Your task to perform on an android device: toggle javascript in the chrome app Image 0: 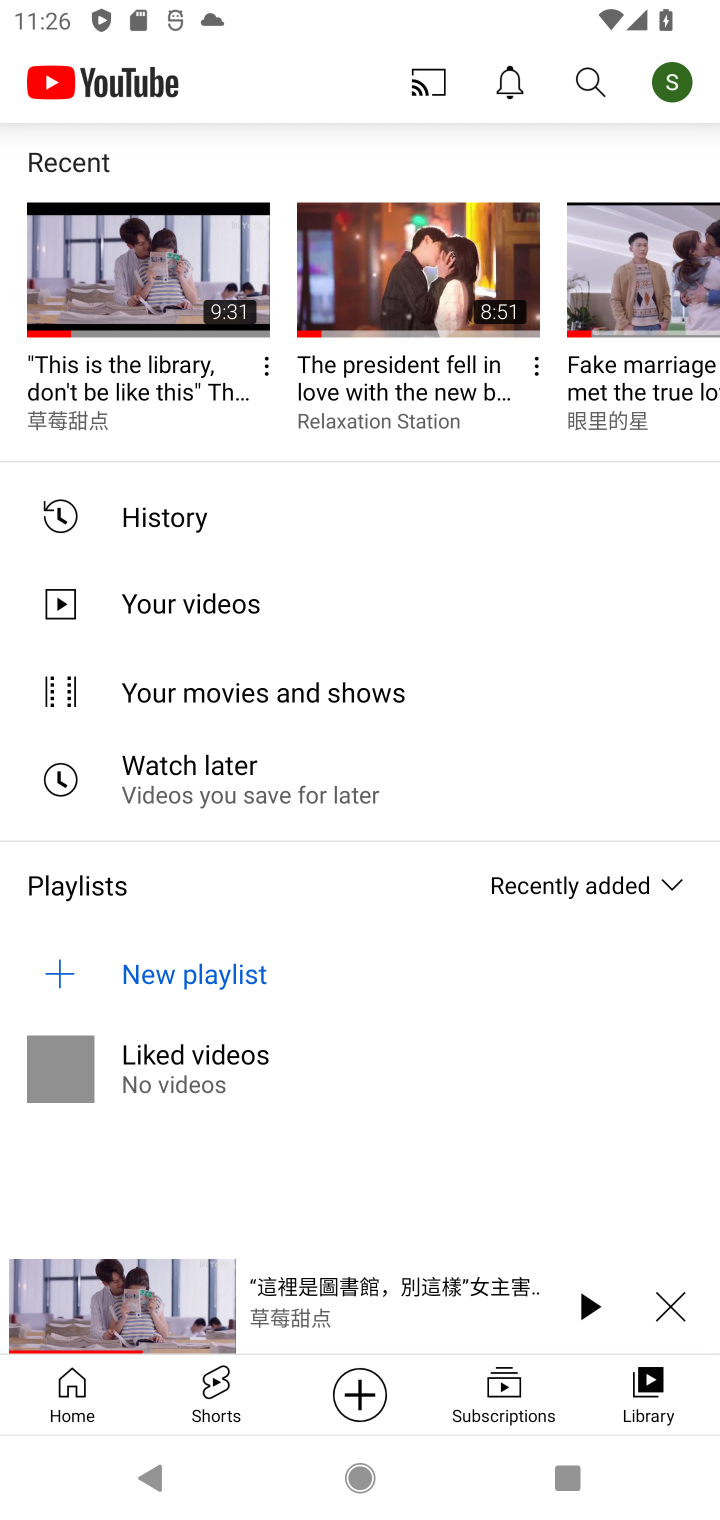
Step 0: press home button
Your task to perform on an android device: toggle javascript in the chrome app Image 1: 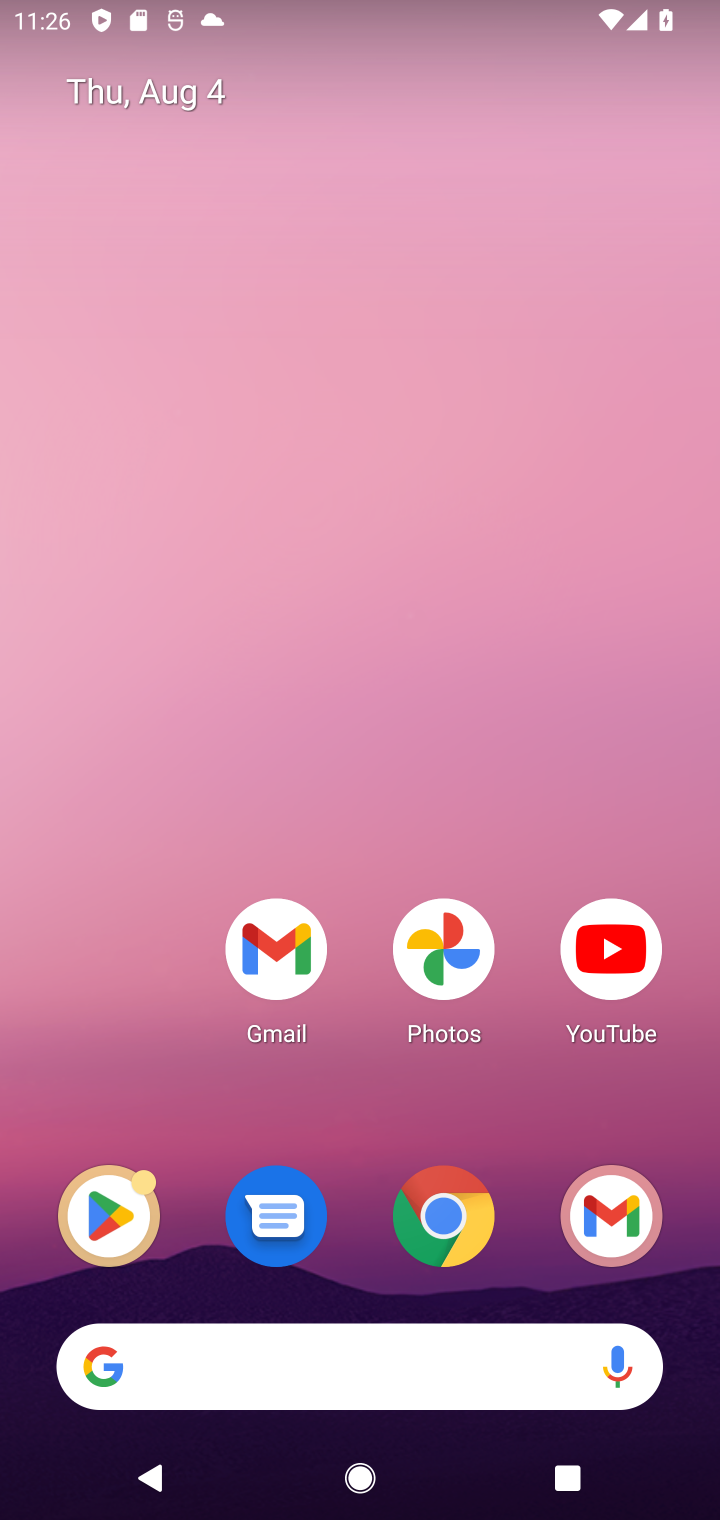
Step 1: click (447, 1212)
Your task to perform on an android device: toggle javascript in the chrome app Image 2: 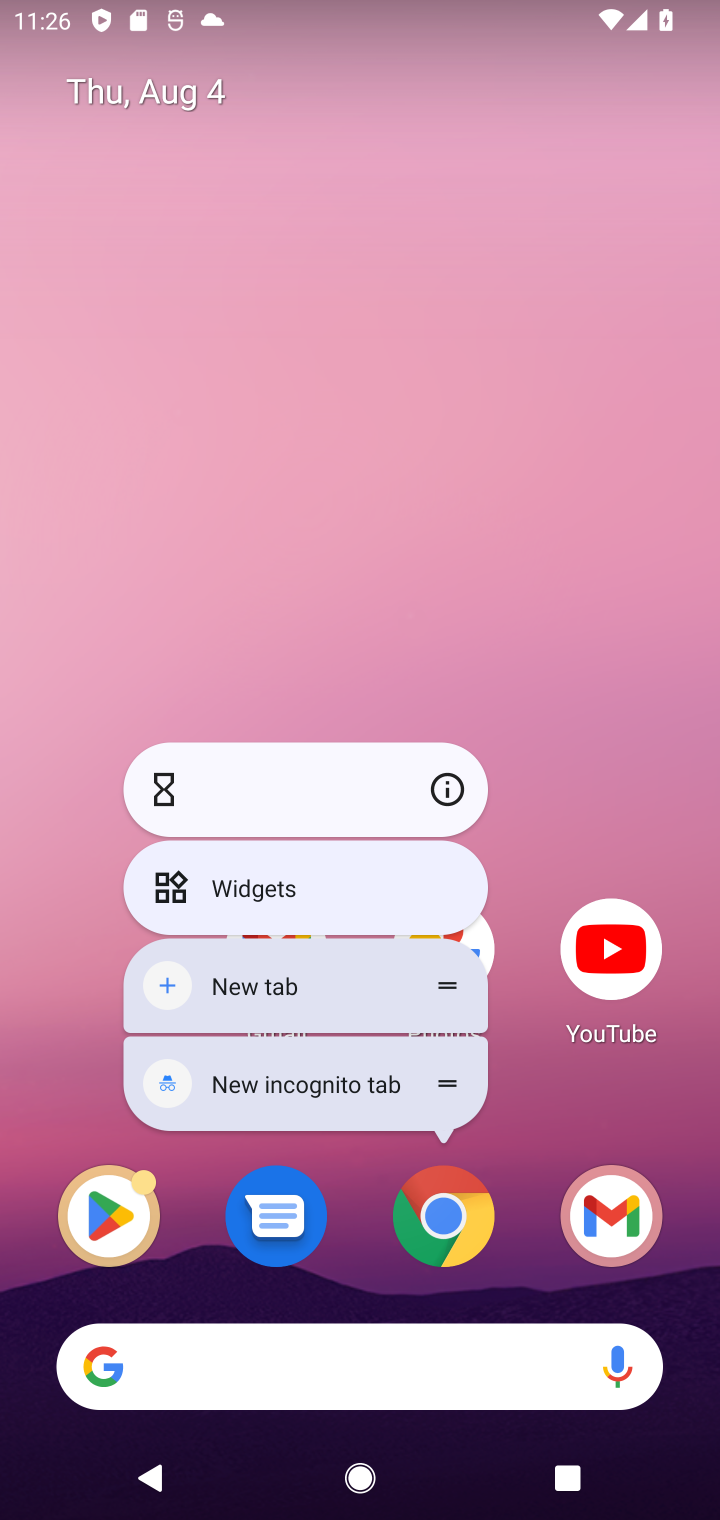
Step 2: click (447, 1212)
Your task to perform on an android device: toggle javascript in the chrome app Image 3: 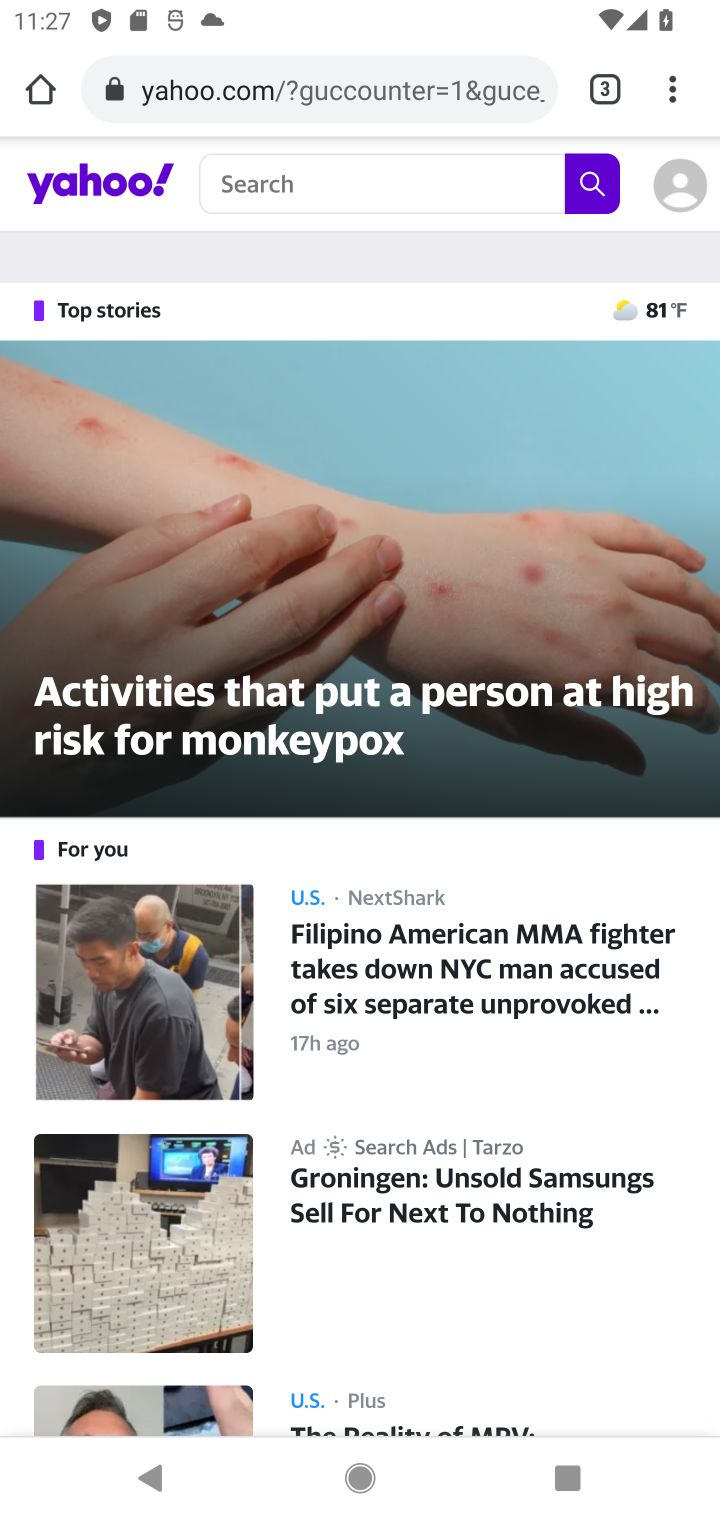
Step 3: click (673, 93)
Your task to perform on an android device: toggle javascript in the chrome app Image 4: 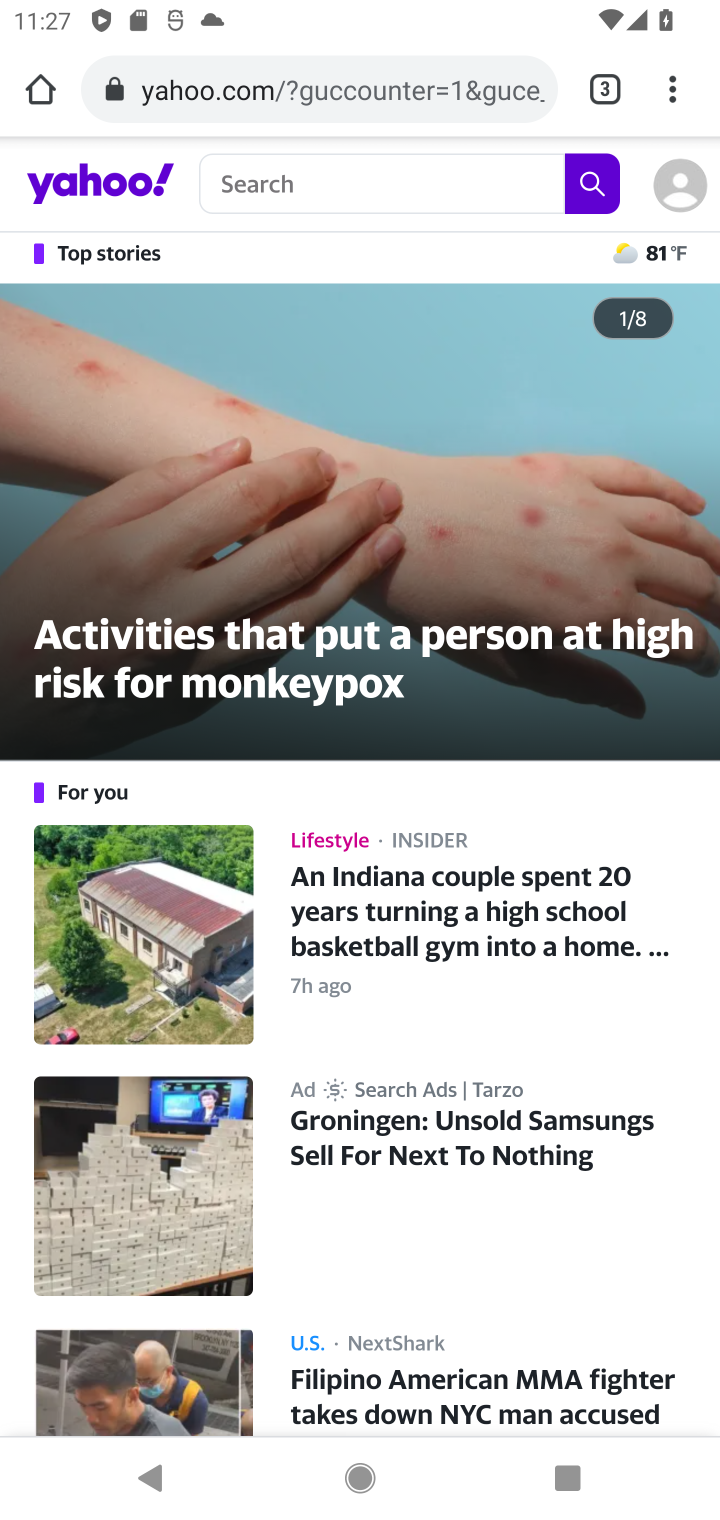
Step 4: drag from (676, 87) to (466, 1179)
Your task to perform on an android device: toggle javascript in the chrome app Image 5: 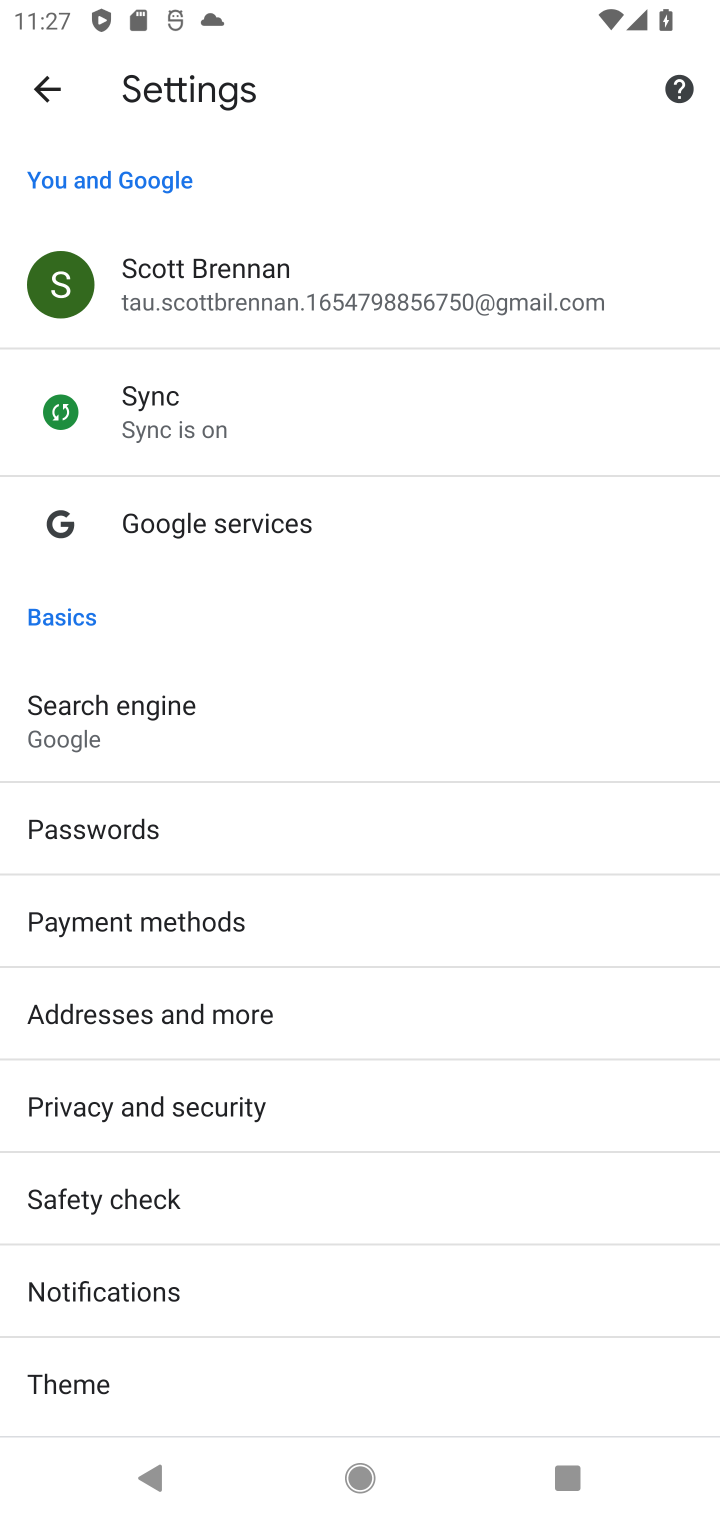
Step 5: drag from (223, 1179) to (276, 942)
Your task to perform on an android device: toggle javascript in the chrome app Image 6: 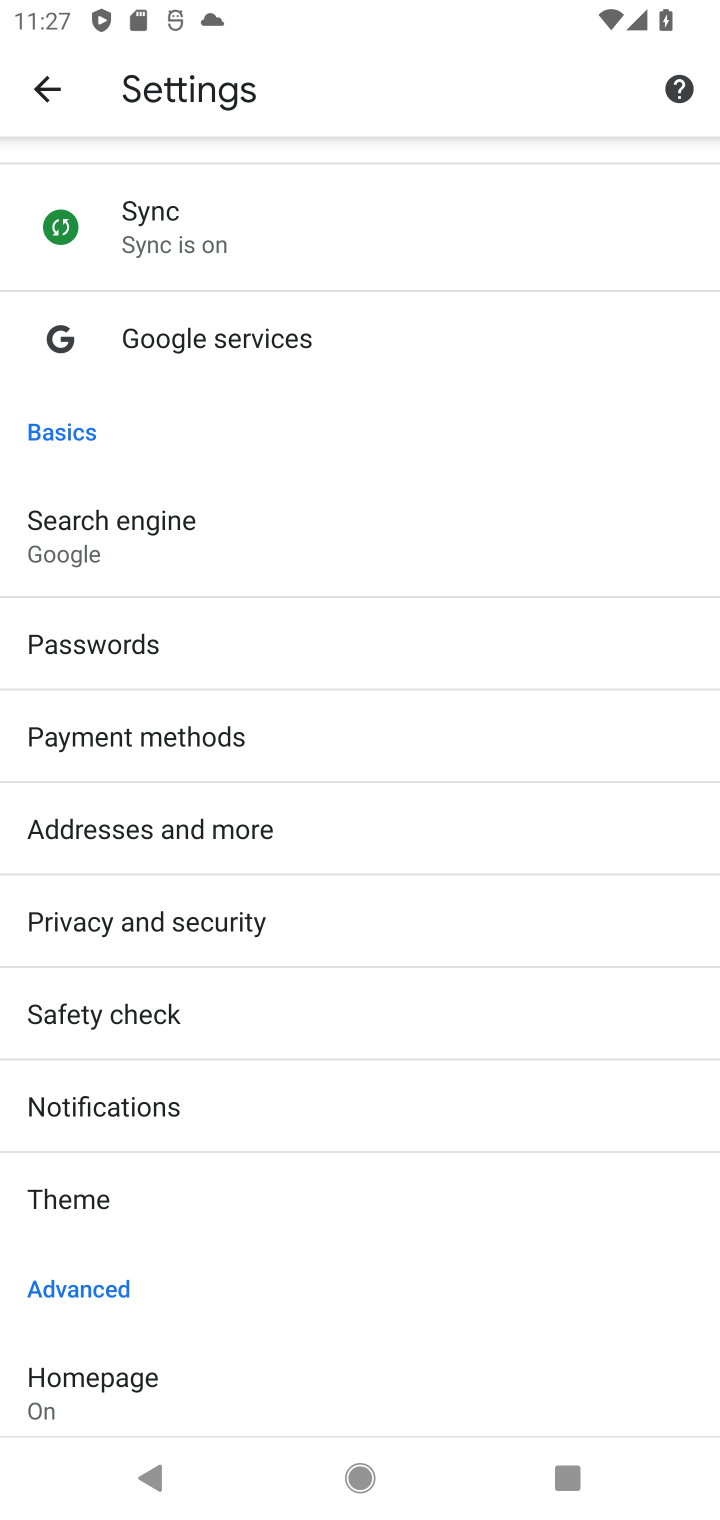
Step 6: drag from (248, 1162) to (273, 872)
Your task to perform on an android device: toggle javascript in the chrome app Image 7: 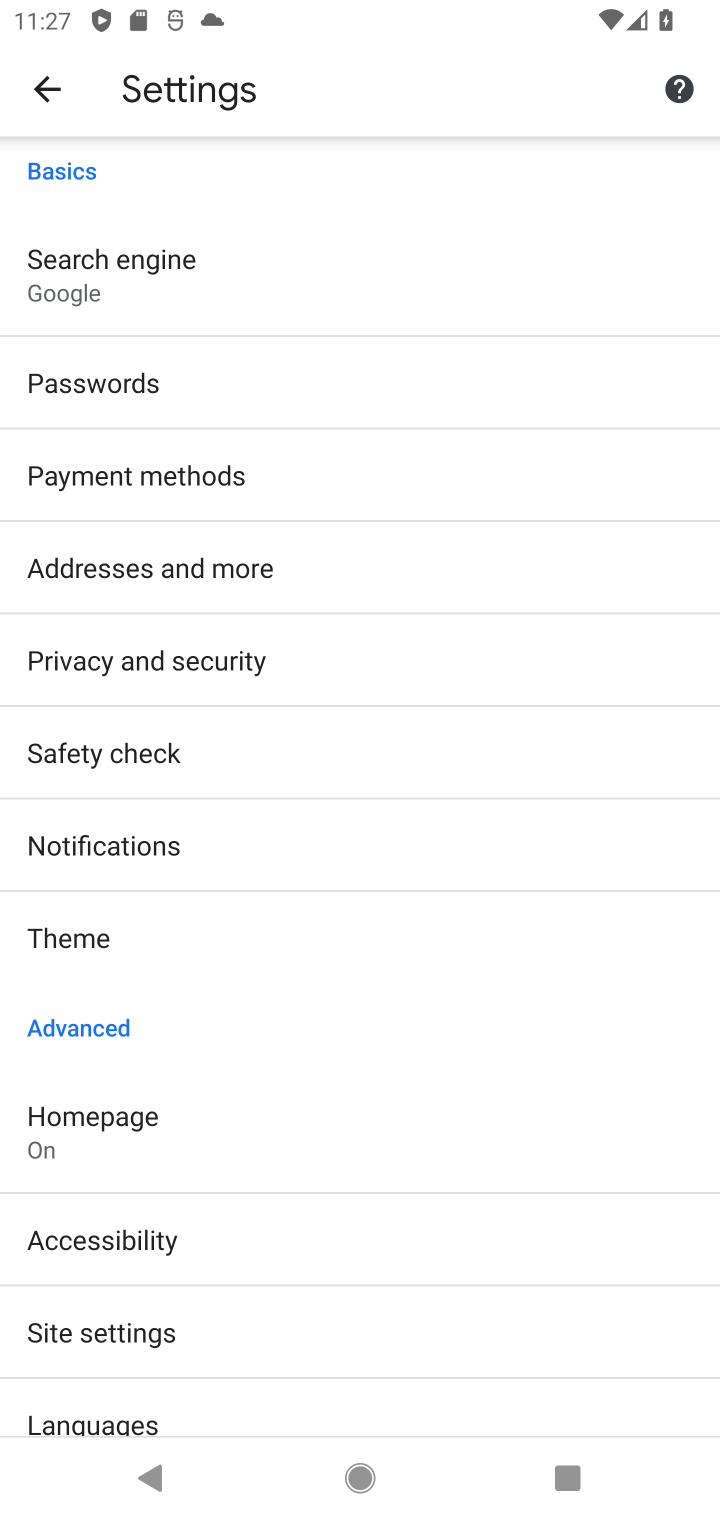
Step 7: drag from (222, 1242) to (226, 1014)
Your task to perform on an android device: toggle javascript in the chrome app Image 8: 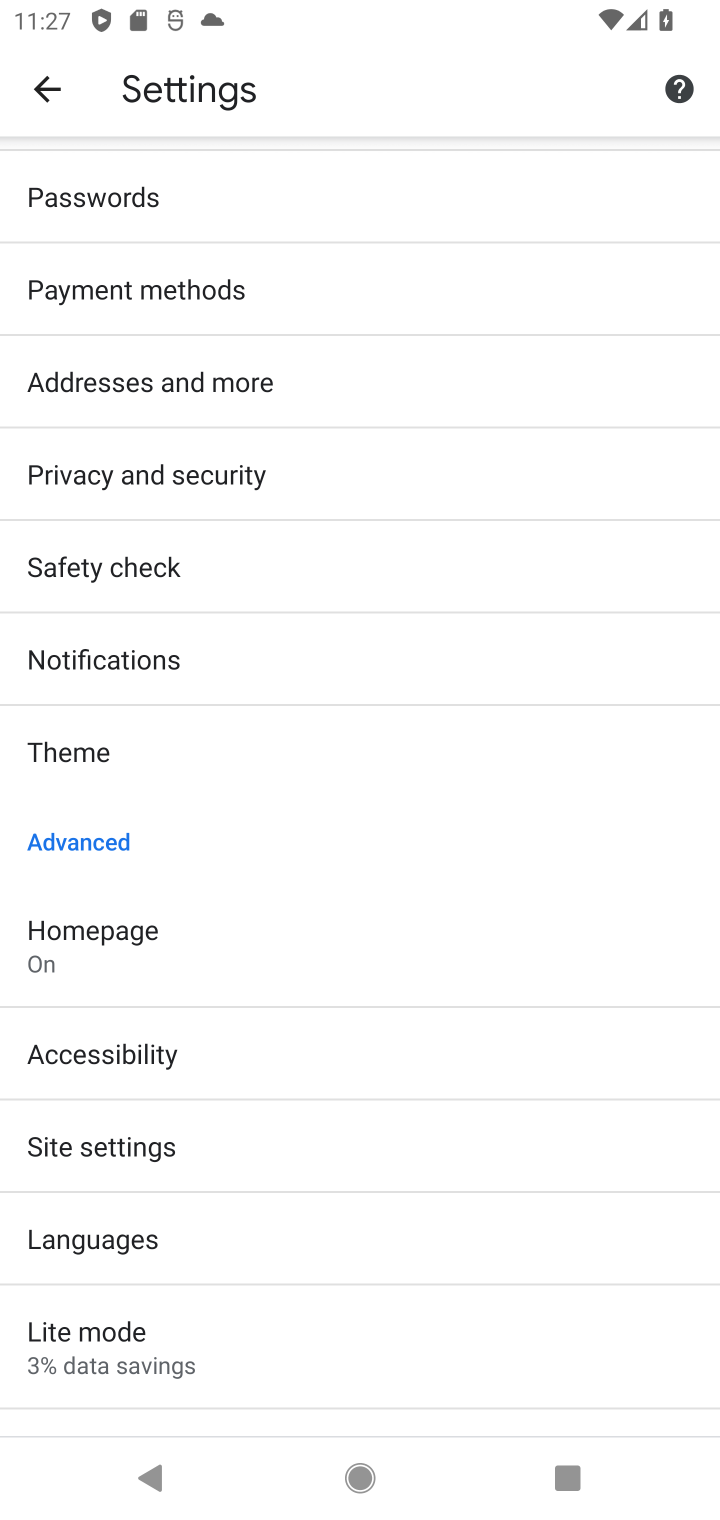
Step 8: click (103, 1149)
Your task to perform on an android device: toggle javascript in the chrome app Image 9: 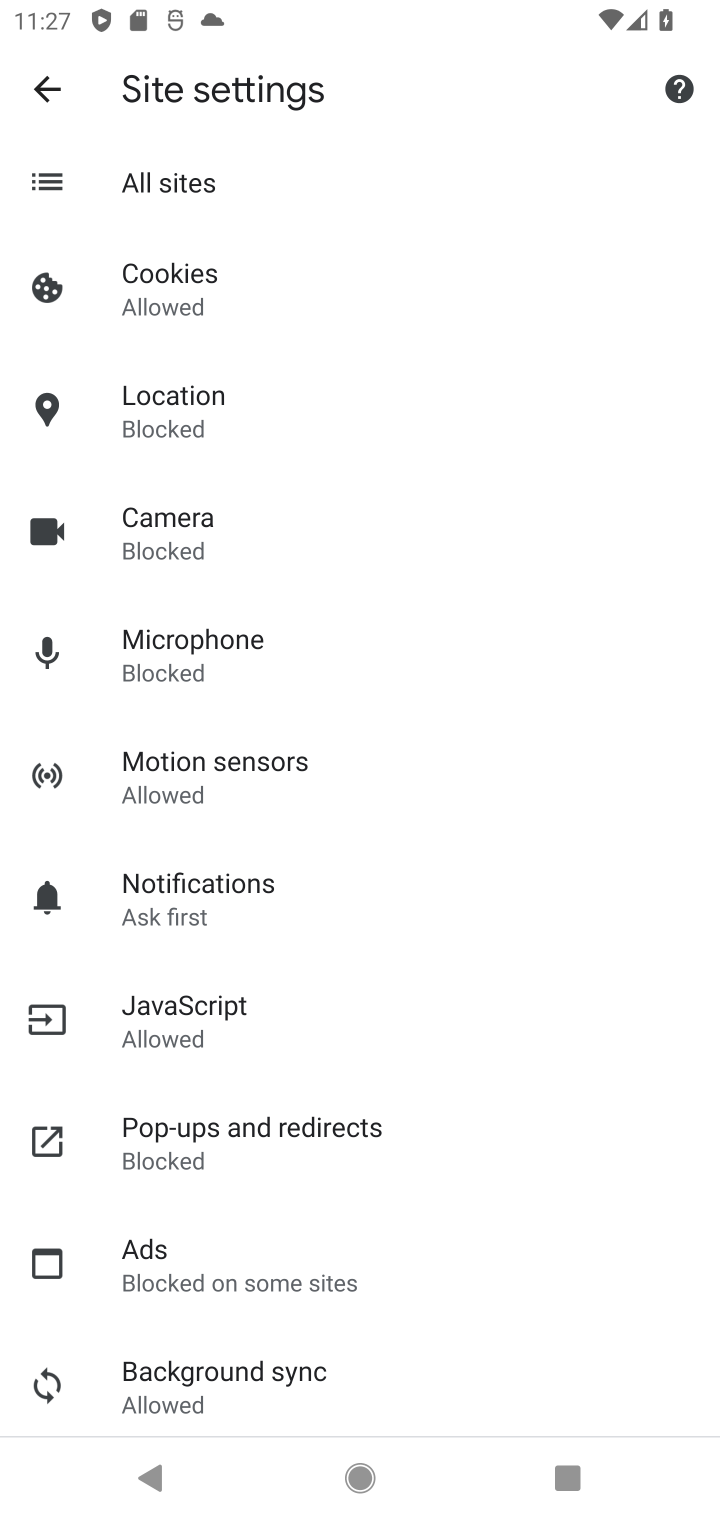
Step 9: click (200, 1030)
Your task to perform on an android device: toggle javascript in the chrome app Image 10: 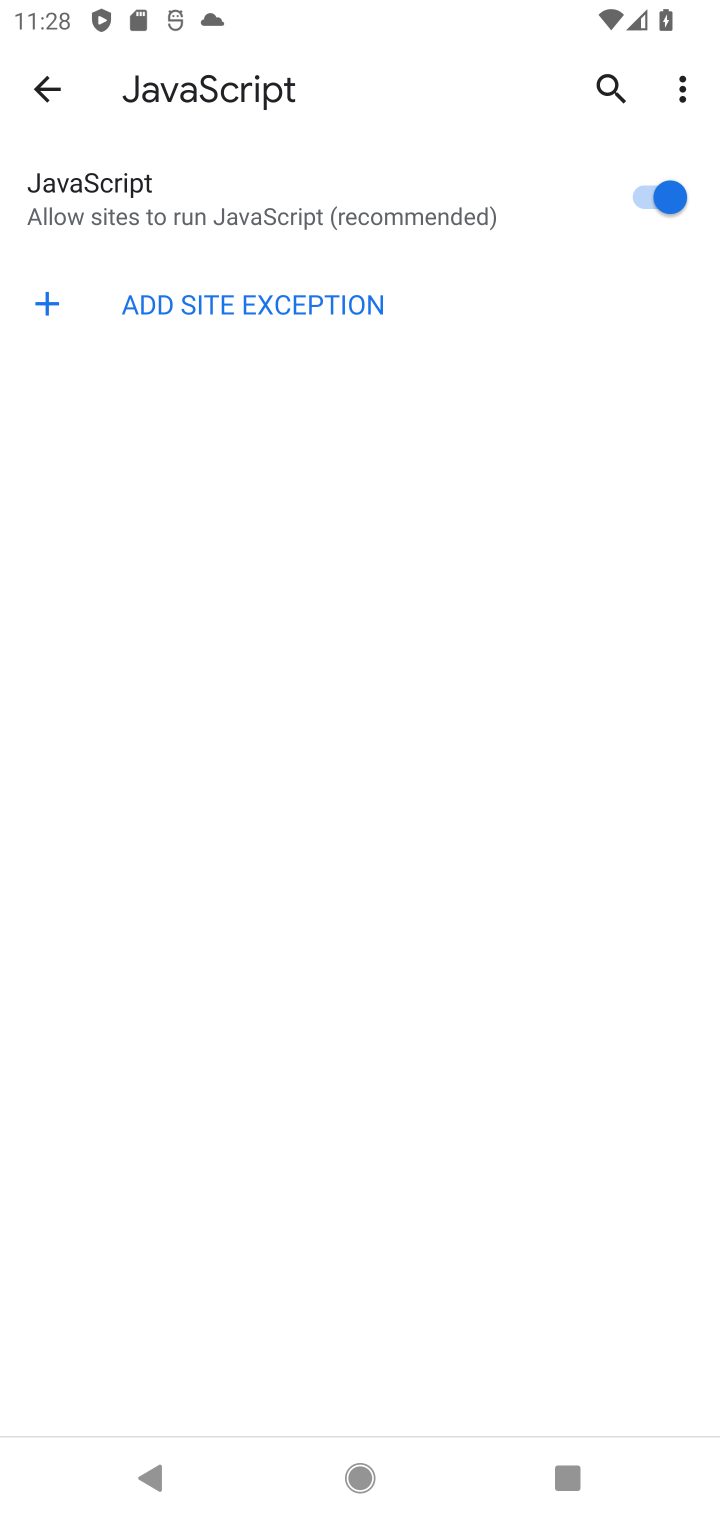
Step 10: click (639, 186)
Your task to perform on an android device: toggle javascript in the chrome app Image 11: 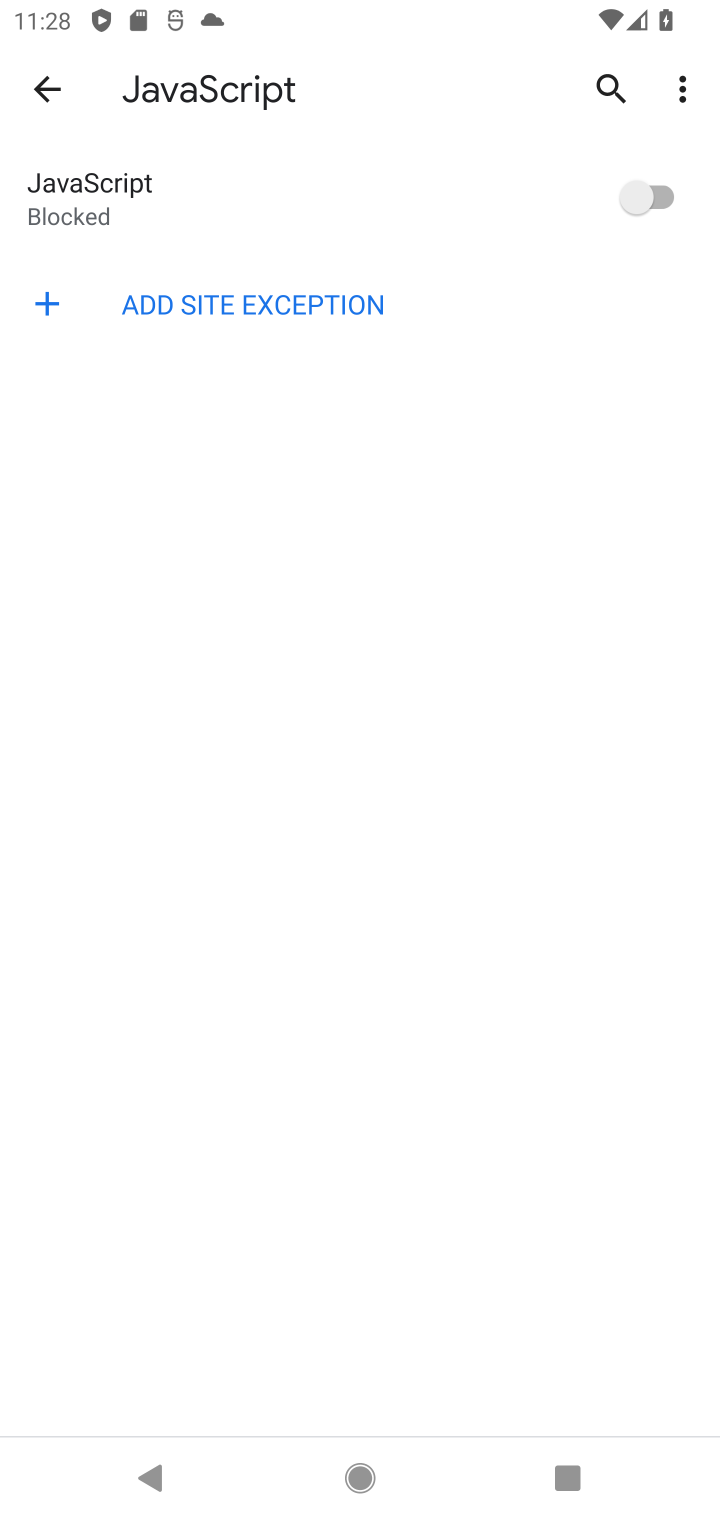
Step 11: task complete